Your task to perform on an android device: allow cookies in the chrome app Image 0: 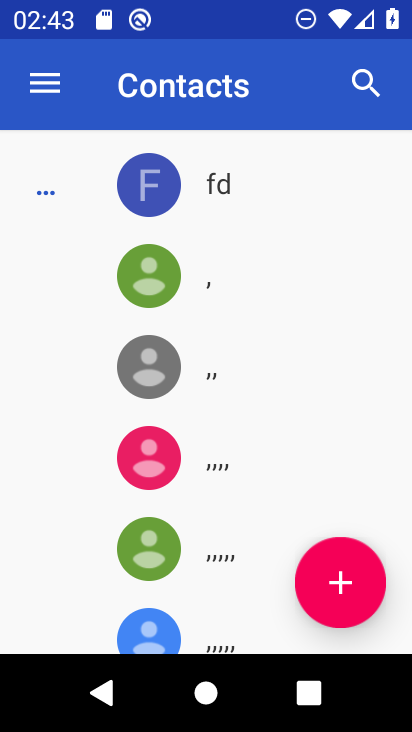
Step 0: press home button
Your task to perform on an android device: allow cookies in the chrome app Image 1: 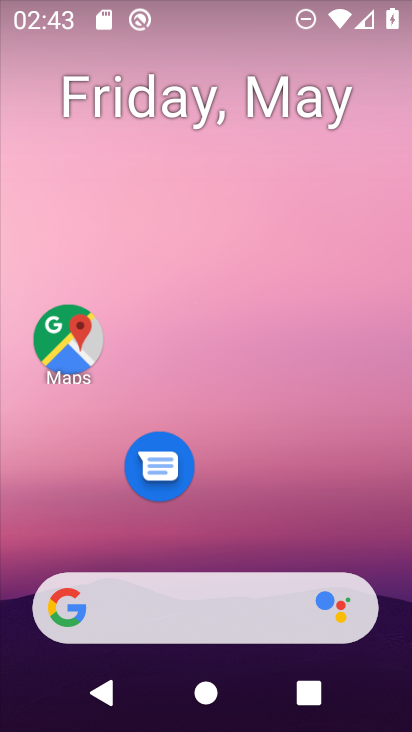
Step 1: drag from (353, 532) to (192, 52)
Your task to perform on an android device: allow cookies in the chrome app Image 2: 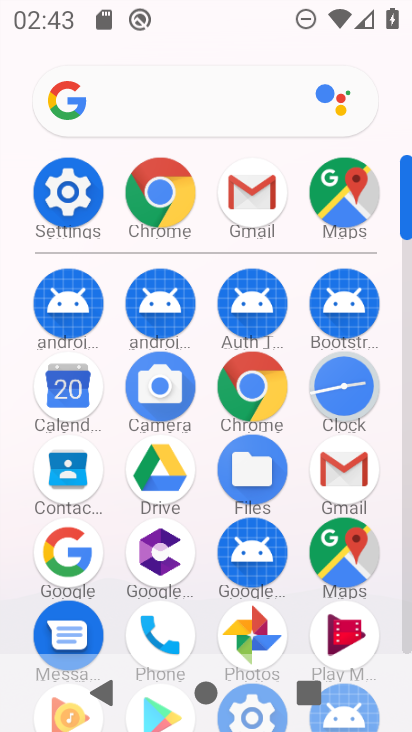
Step 2: click (165, 207)
Your task to perform on an android device: allow cookies in the chrome app Image 3: 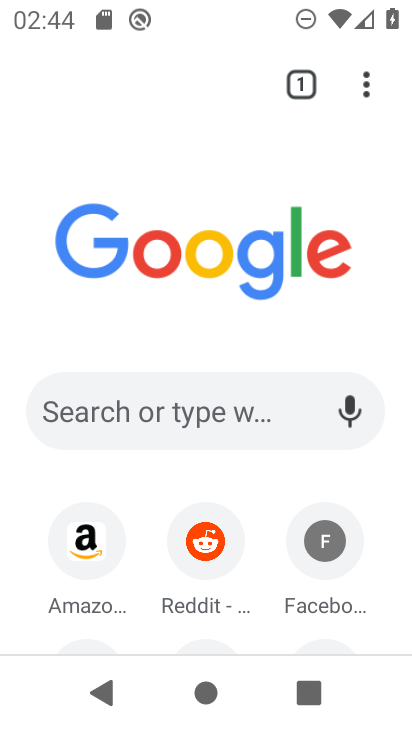
Step 3: click (374, 74)
Your task to perform on an android device: allow cookies in the chrome app Image 4: 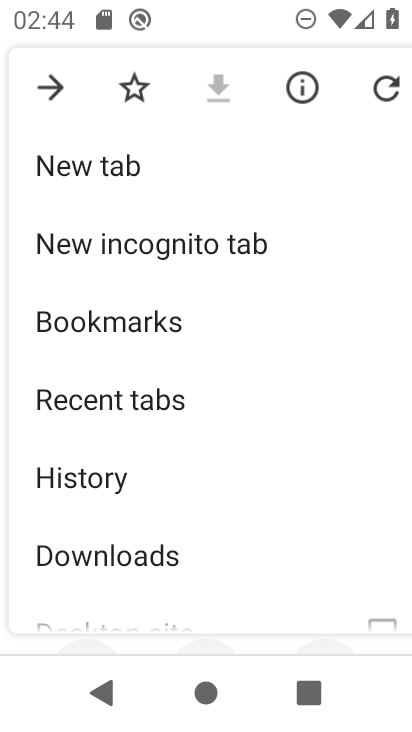
Step 4: drag from (308, 432) to (240, 278)
Your task to perform on an android device: allow cookies in the chrome app Image 5: 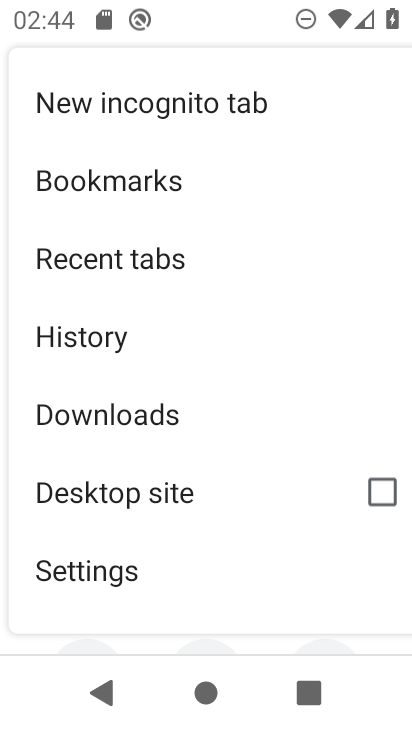
Step 5: click (267, 538)
Your task to perform on an android device: allow cookies in the chrome app Image 6: 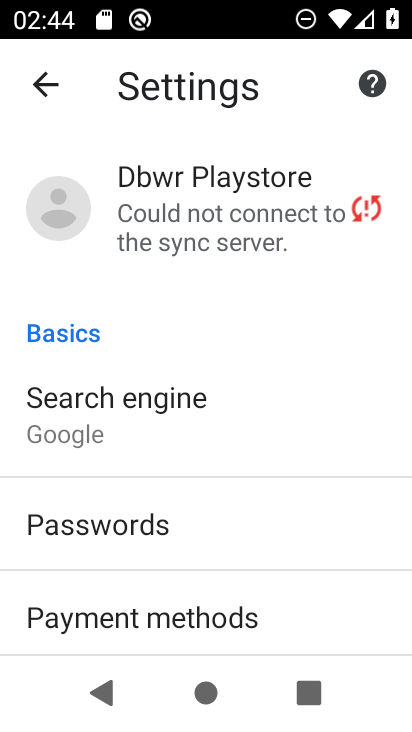
Step 6: task complete